Your task to perform on an android device: Open privacy settings Image 0: 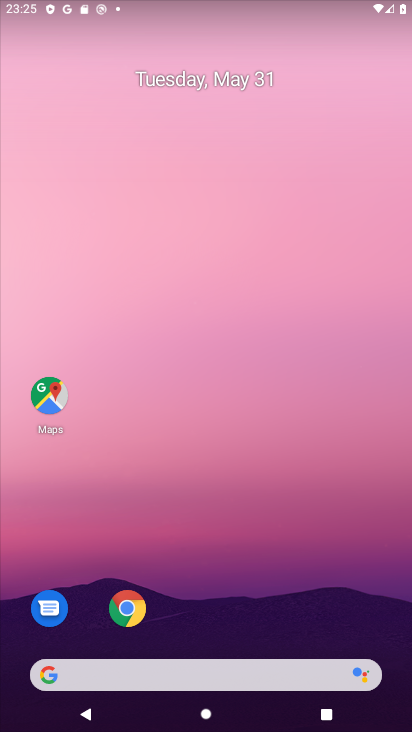
Step 0: drag from (313, 590) to (363, 5)
Your task to perform on an android device: Open privacy settings Image 1: 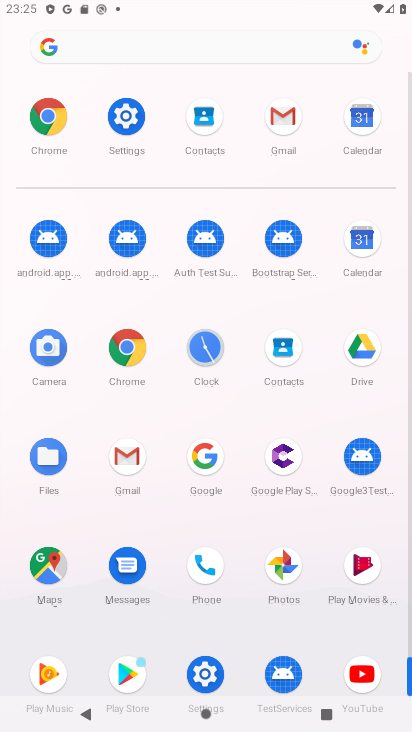
Step 1: click (128, 113)
Your task to perform on an android device: Open privacy settings Image 2: 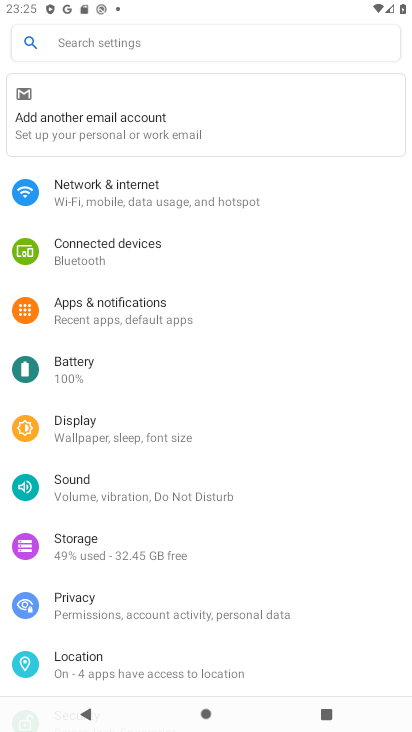
Step 2: click (105, 614)
Your task to perform on an android device: Open privacy settings Image 3: 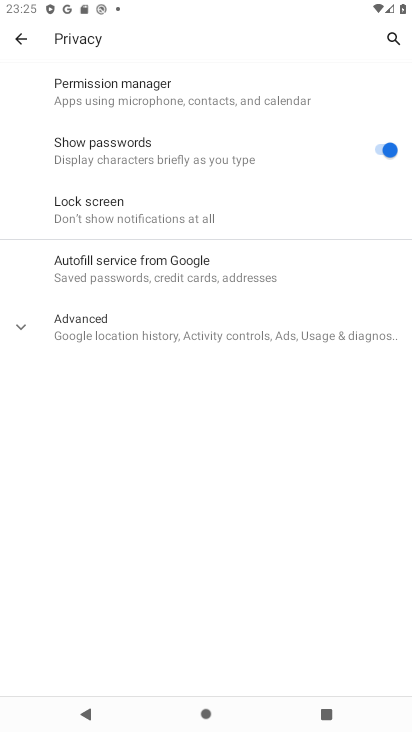
Step 3: task complete